Your task to perform on an android device: change keyboard looks Image 0: 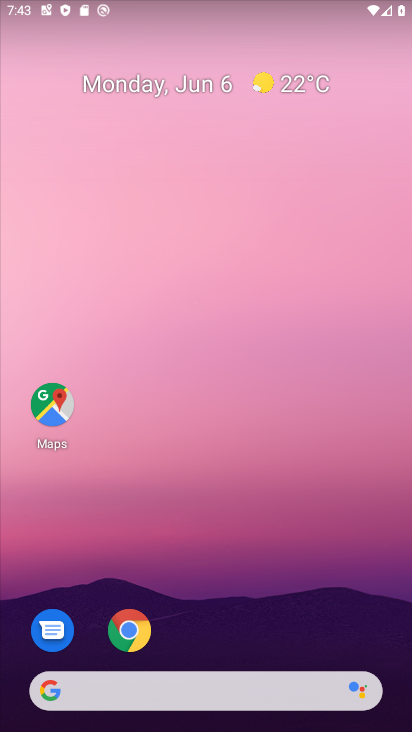
Step 0: drag from (104, 723) to (112, 204)
Your task to perform on an android device: change keyboard looks Image 1: 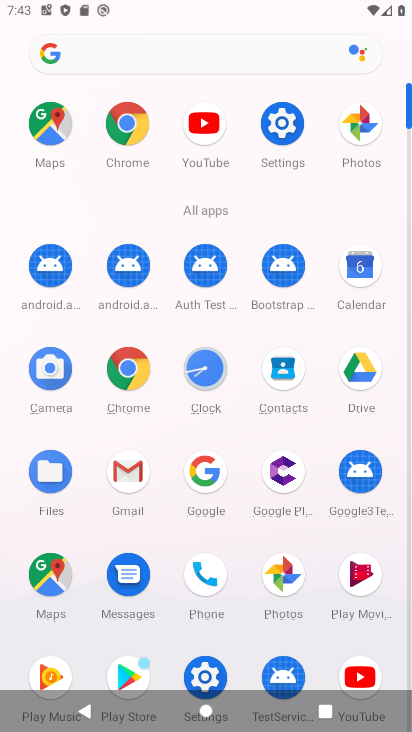
Step 1: click (292, 133)
Your task to perform on an android device: change keyboard looks Image 2: 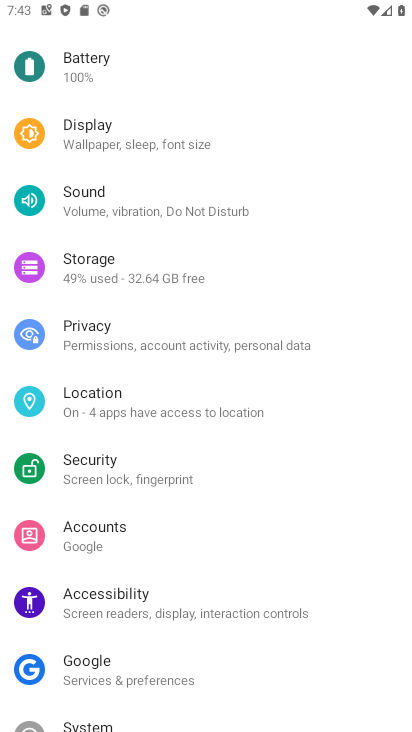
Step 2: click (100, 723)
Your task to perform on an android device: change keyboard looks Image 3: 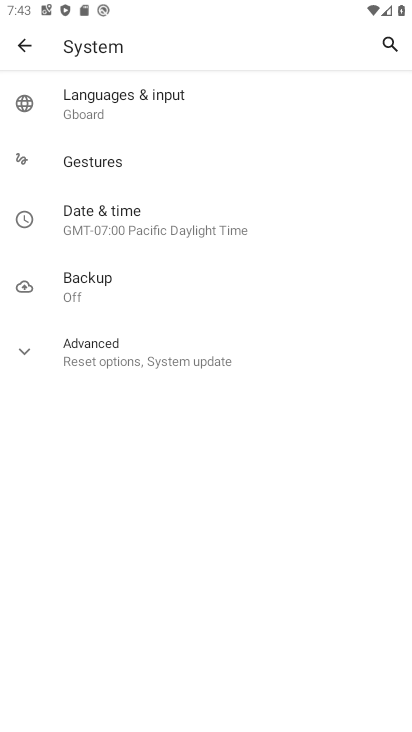
Step 3: click (96, 110)
Your task to perform on an android device: change keyboard looks Image 4: 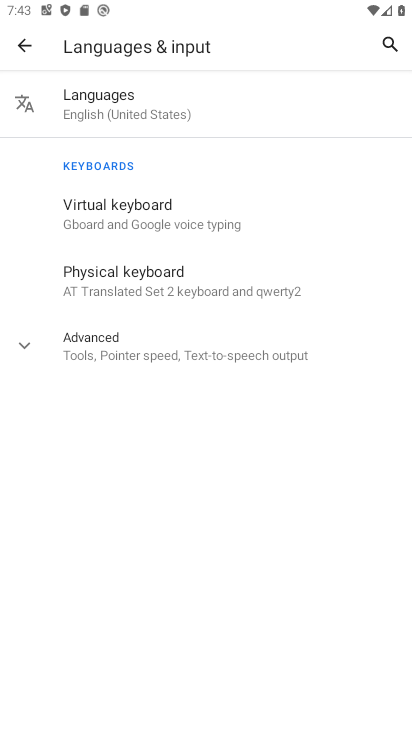
Step 4: click (103, 218)
Your task to perform on an android device: change keyboard looks Image 5: 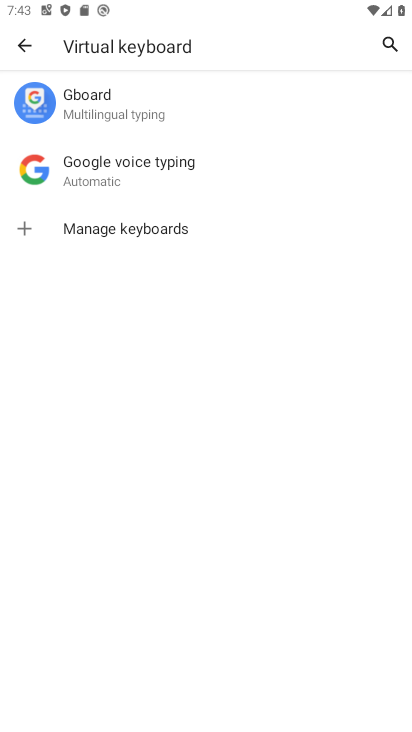
Step 5: click (99, 121)
Your task to perform on an android device: change keyboard looks Image 6: 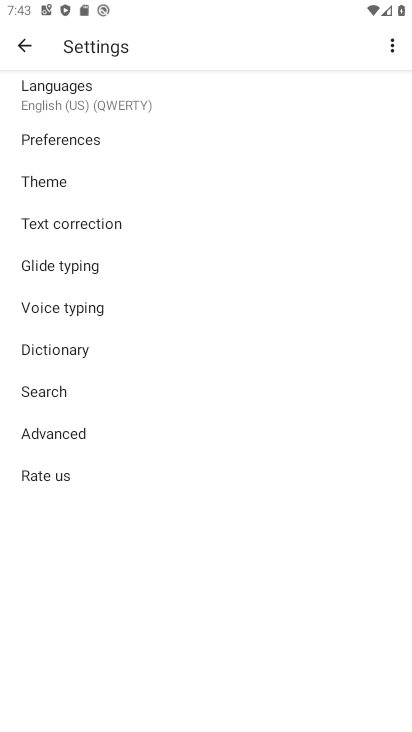
Step 6: click (78, 192)
Your task to perform on an android device: change keyboard looks Image 7: 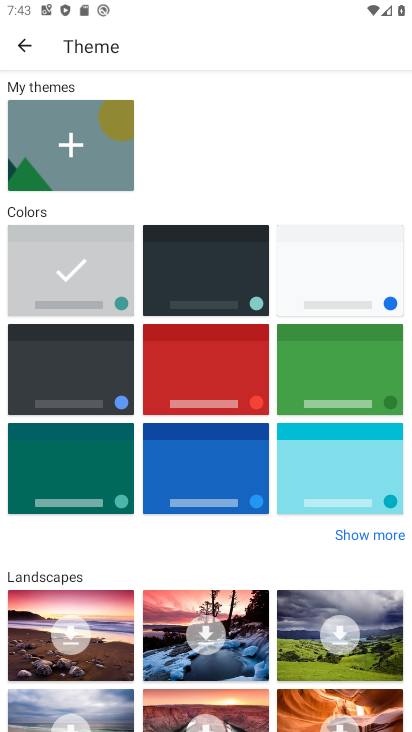
Step 7: click (209, 288)
Your task to perform on an android device: change keyboard looks Image 8: 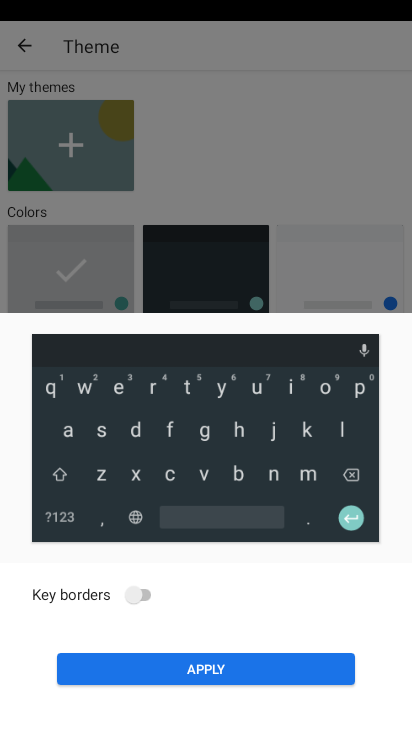
Step 8: click (247, 693)
Your task to perform on an android device: change keyboard looks Image 9: 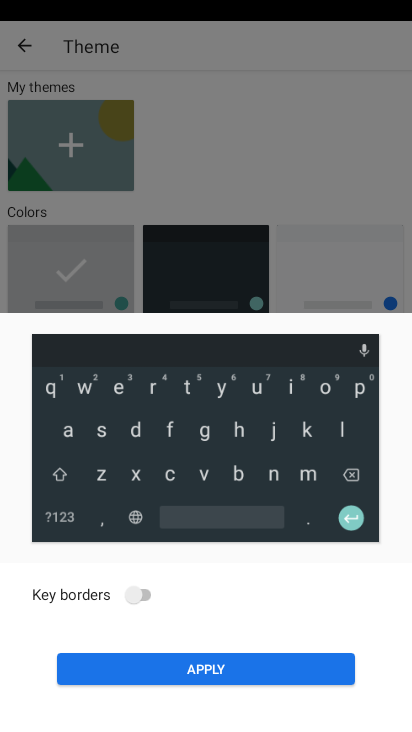
Step 9: click (247, 679)
Your task to perform on an android device: change keyboard looks Image 10: 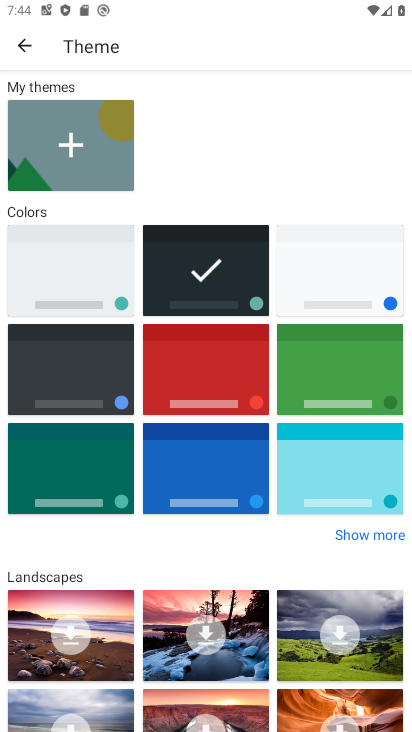
Step 10: task complete